Your task to perform on an android device: Empty the shopping cart on costco.com. Search for acer nitro on costco.com, select the first entry, and add it to the cart. Image 0: 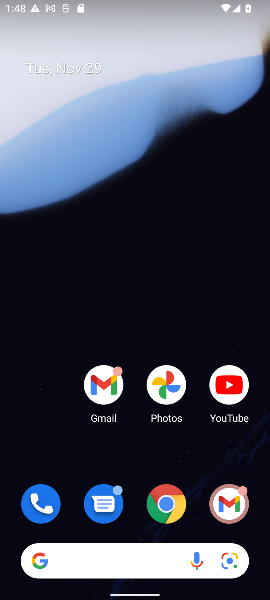
Step 0: click (172, 514)
Your task to perform on an android device: Empty the shopping cart on costco.com. Search for acer nitro on costco.com, select the first entry, and add it to the cart. Image 1: 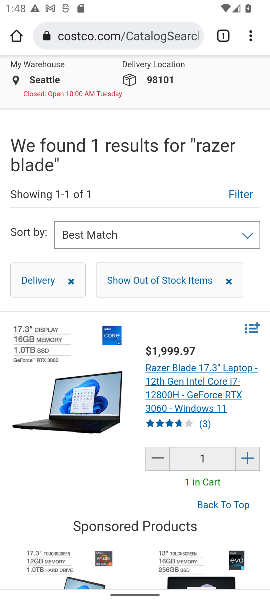
Step 1: drag from (136, 169) to (144, 349)
Your task to perform on an android device: Empty the shopping cart on costco.com. Search for acer nitro on costco.com, select the first entry, and add it to the cart. Image 2: 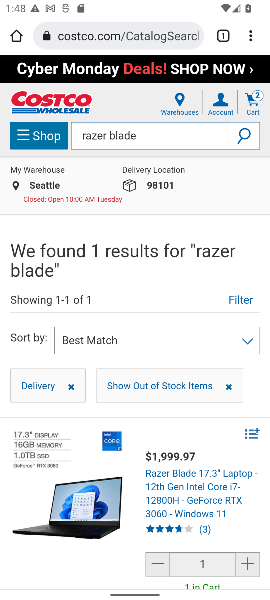
Step 2: click (254, 105)
Your task to perform on an android device: Empty the shopping cart on costco.com. Search for acer nitro on costco.com, select the first entry, and add it to the cart. Image 3: 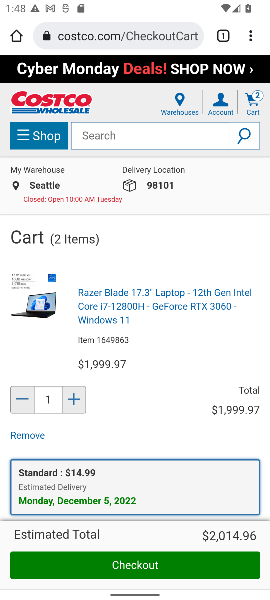
Step 3: drag from (141, 373) to (167, 157)
Your task to perform on an android device: Empty the shopping cart on costco.com. Search for acer nitro on costco.com, select the first entry, and add it to the cart. Image 4: 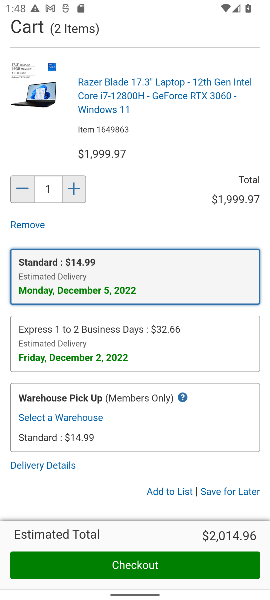
Step 4: drag from (148, 402) to (150, 255)
Your task to perform on an android device: Empty the shopping cart on costco.com. Search for acer nitro on costco.com, select the first entry, and add it to the cart. Image 5: 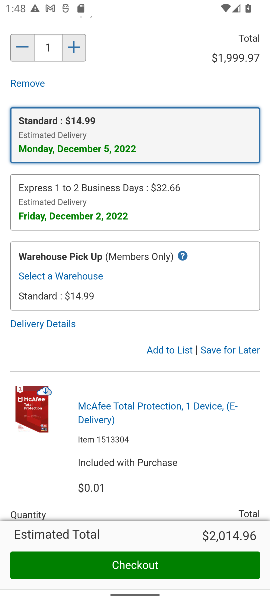
Step 5: click (235, 352)
Your task to perform on an android device: Empty the shopping cart on costco.com. Search for acer nitro on costco.com, select the first entry, and add it to the cart. Image 6: 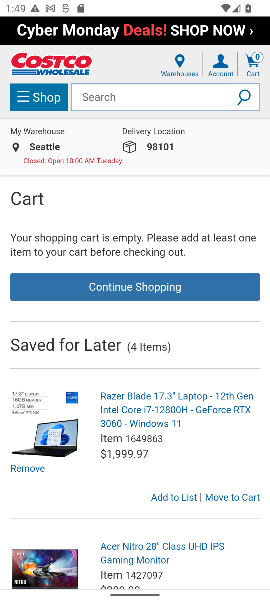
Step 6: drag from (142, 373) to (142, 296)
Your task to perform on an android device: Empty the shopping cart on costco.com. Search for acer nitro on costco.com, select the first entry, and add it to the cart. Image 7: 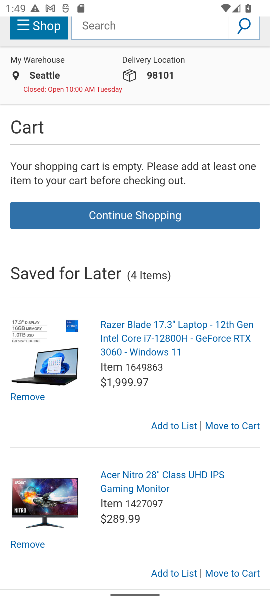
Step 7: drag from (218, 284) to (205, 418)
Your task to perform on an android device: Empty the shopping cart on costco.com. Search for acer nitro on costco.com, select the first entry, and add it to the cart. Image 8: 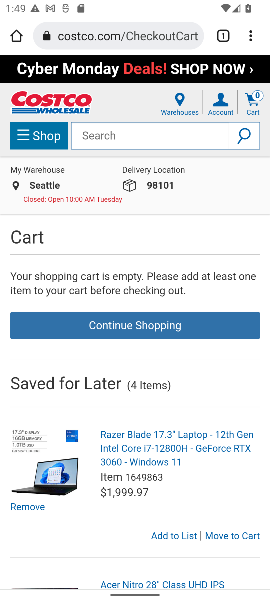
Step 8: click (99, 135)
Your task to perform on an android device: Empty the shopping cart on costco.com. Search for acer nitro on costco.com, select the first entry, and add it to the cart. Image 9: 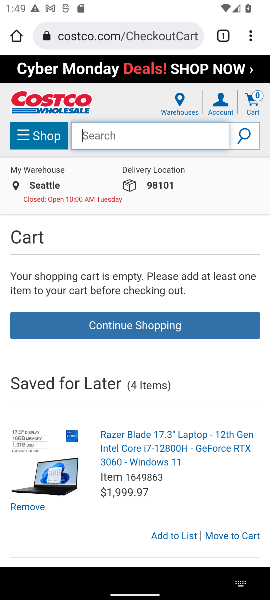
Step 9: type "acer nitro"
Your task to perform on an android device: Empty the shopping cart on costco.com. Search for acer nitro on costco.com, select the first entry, and add it to the cart. Image 10: 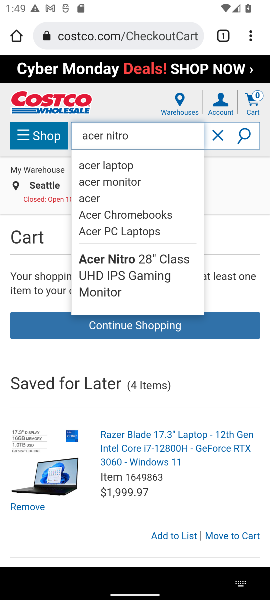
Step 10: click (242, 135)
Your task to perform on an android device: Empty the shopping cart on costco.com. Search for acer nitro on costco.com, select the first entry, and add it to the cart. Image 11: 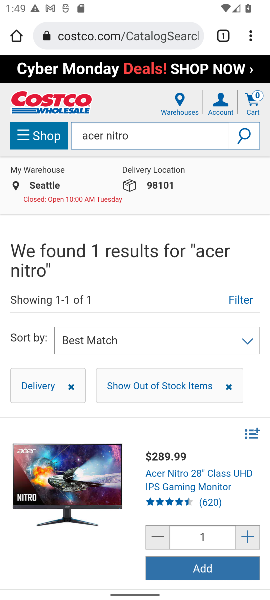
Step 11: drag from (133, 357) to (129, 249)
Your task to perform on an android device: Empty the shopping cart on costco.com. Search for acer nitro on costco.com, select the first entry, and add it to the cart. Image 12: 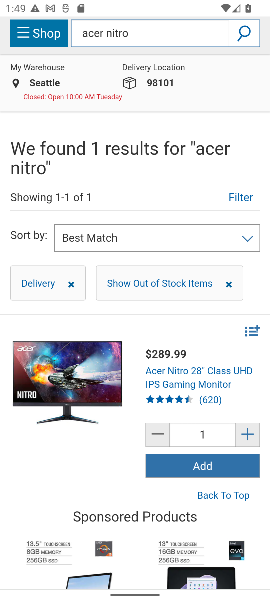
Step 12: click (188, 468)
Your task to perform on an android device: Empty the shopping cart on costco.com. Search for acer nitro on costco.com, select the first entry, and add it to the cart. Image 13: 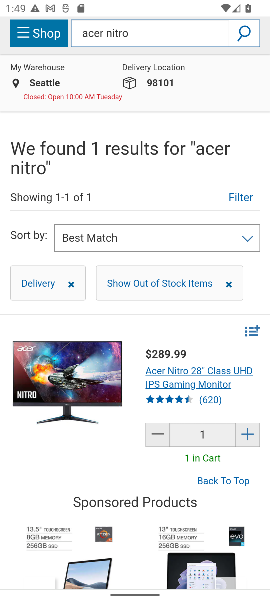
Step 13: task complete